Your task to perform on an android device: turn vacation reply on in the gmail app Image 0: 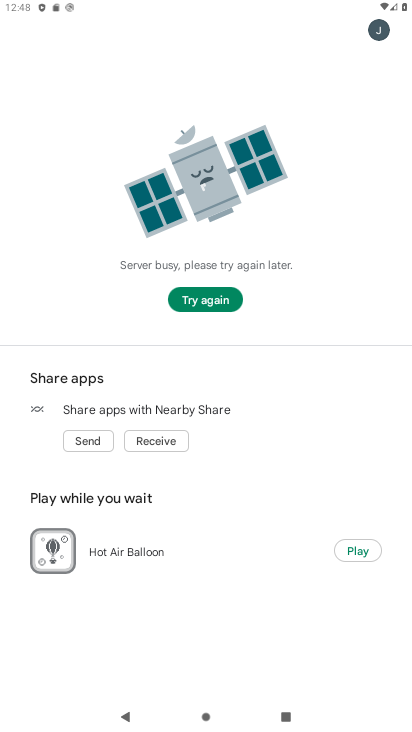
Step 0: press home button
Your task to perform on an android device: turn vacation reply on in the gmail app Image 1: 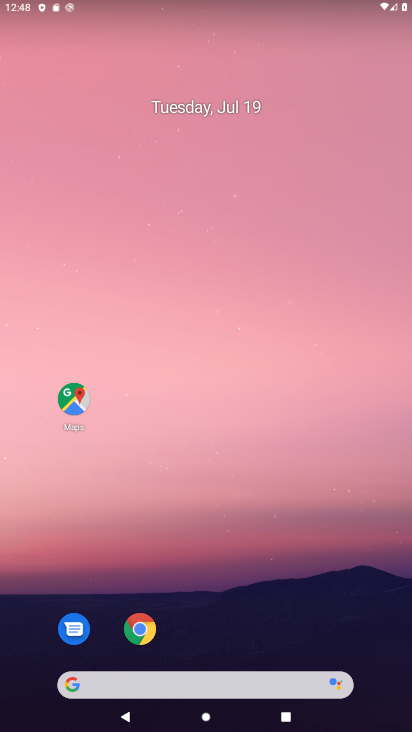
Step 1: drag from (256, 639) to (150, 175)
Your task to perform on an android device: turn vacation reply on in the gmail app Image 2: 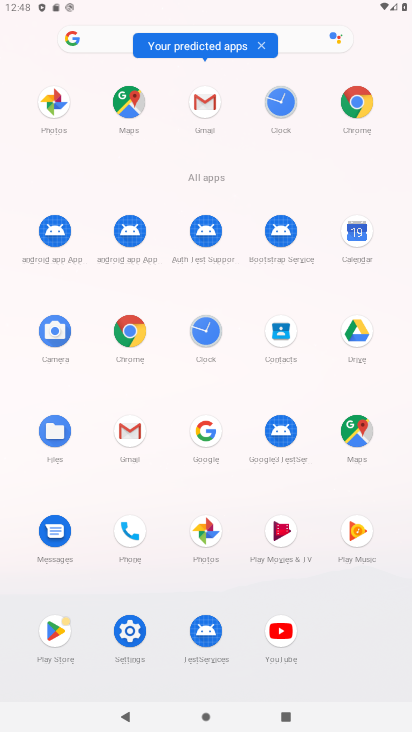
Step 2: click (208, 97)
Your task to perform on an android device: turn vacation reply on in the gmail app Image 3: 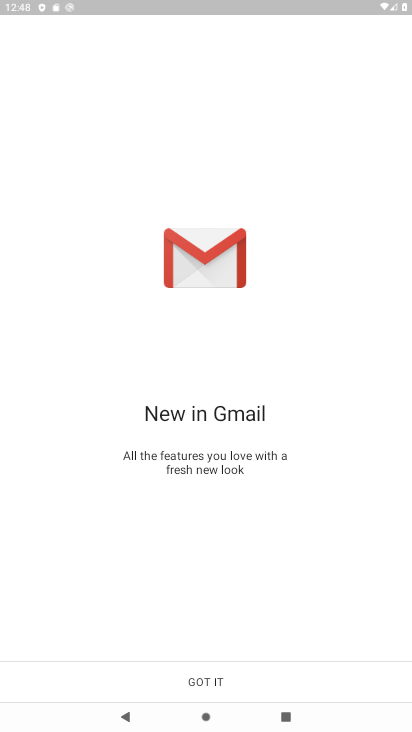
Step 3: click (222, 669)
Your task to perform on an android device: turn vacation reply on in the gmail app Image 4: 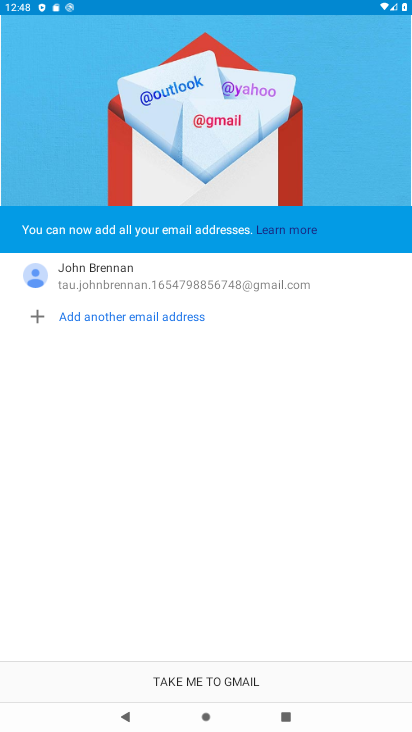
Step 4: click (230, 685)
Your task to perform on an android device: turn vacation reply on in the gmail app Image 5: 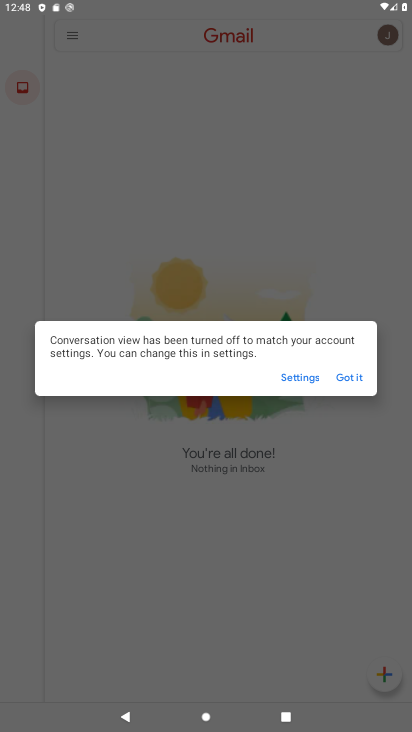
Step 5: click (356, 379)
Your task to perform on an android device: turn vacation reply on in the gmail app Image 6: 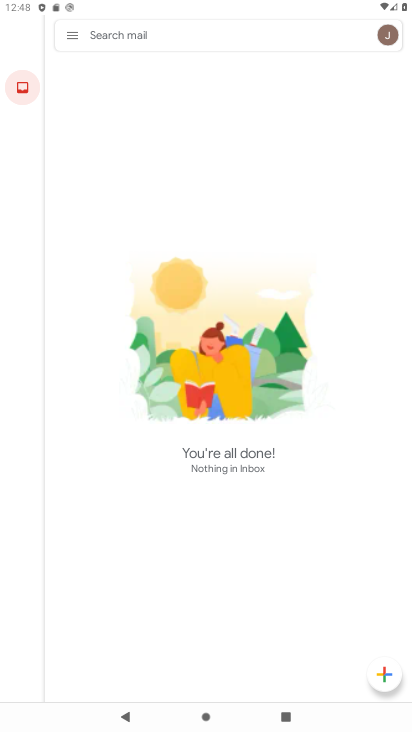
Step 6: click (72, 39)
Your task to perform on an android device: turn vacation reply on in the gmail app Image 7: 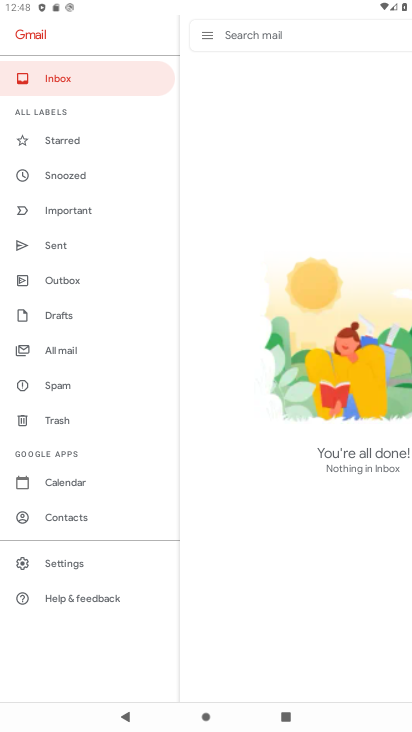
Step 7: click (65, 569)
Your task to perform on an android device: turn vacation reply on in the gmail app Image 8: 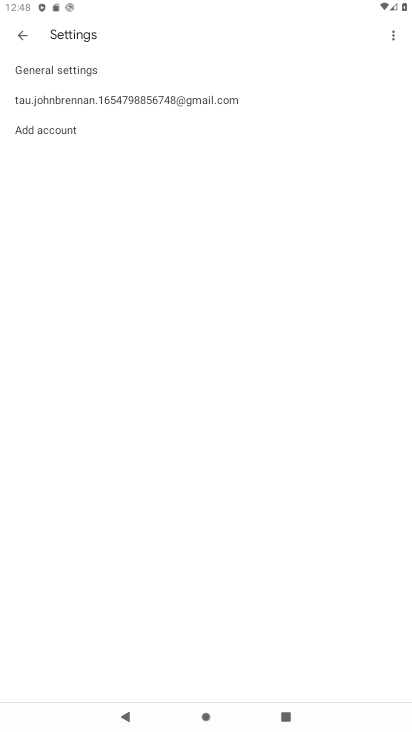
Step 8: click (234, 102)
Your task to perform on an android device: turn vacation reply on in the gmail app Image 9: 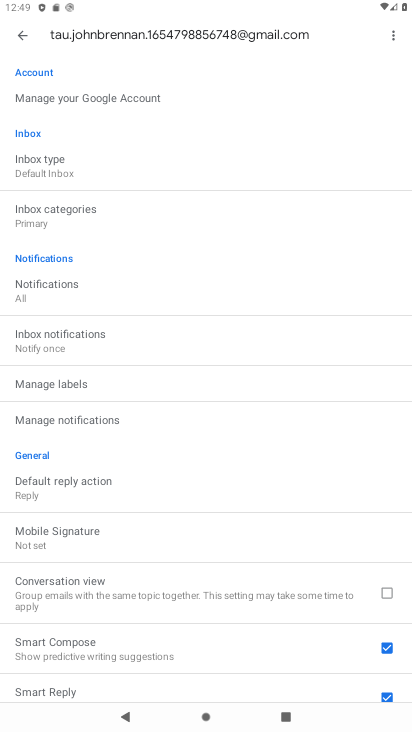
Step 9: drag from (161, 616) to (122, 202)
Your task to perform on an android device: turn vacation reply on in the gmail app Image 10: 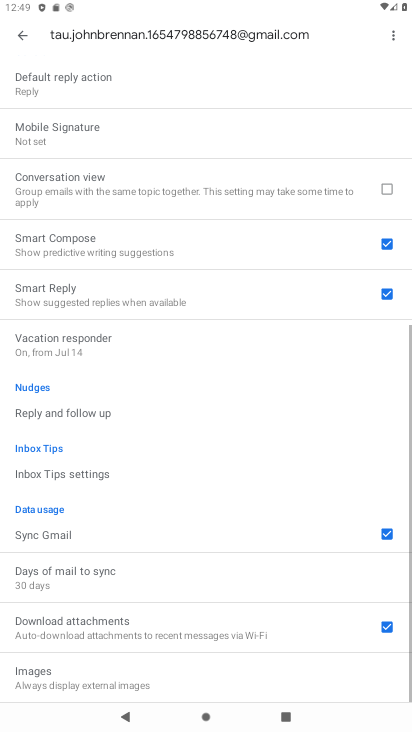
Step 10: click (135, 335)
Your task to perform on an android device: turn vacation reply on in the gmail app Image 11: 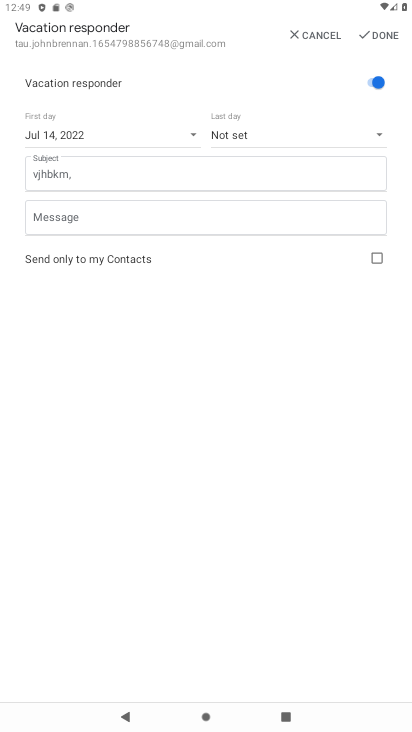
Step 11: click (380, 36)
Your task to perform on an android device: turn vacation reply on in the gmail app Image 12: 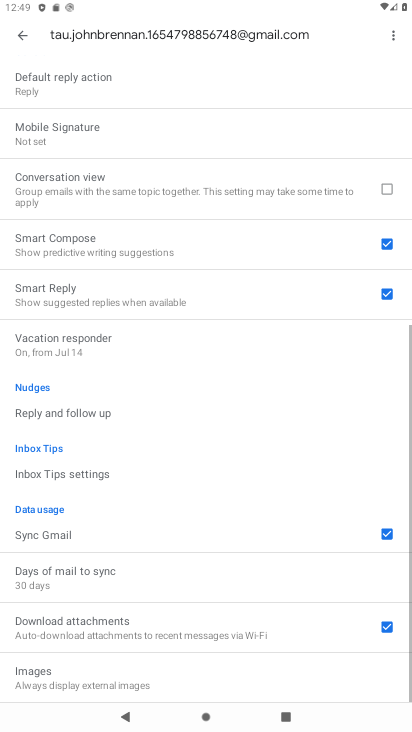
Step 12: task complete